Your task to perform on an android device: Do I have any events this weekend? Image 0: 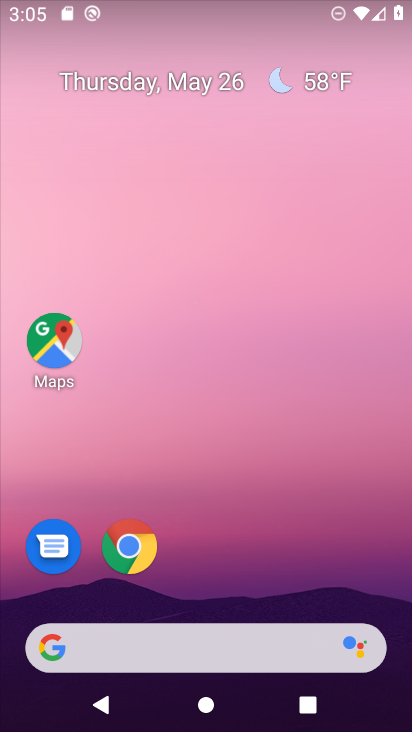
Step 0: press home button
Your task to perform on an android device: Do I have any events this weekend? Image 1: 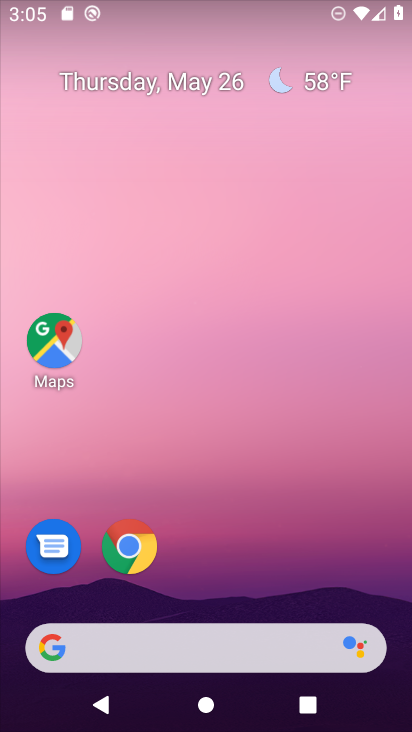
Step 1: drag from (226, 608) to (233, 1)
Your task to perform on an android device: Do I have any events this weekend? Image 2: 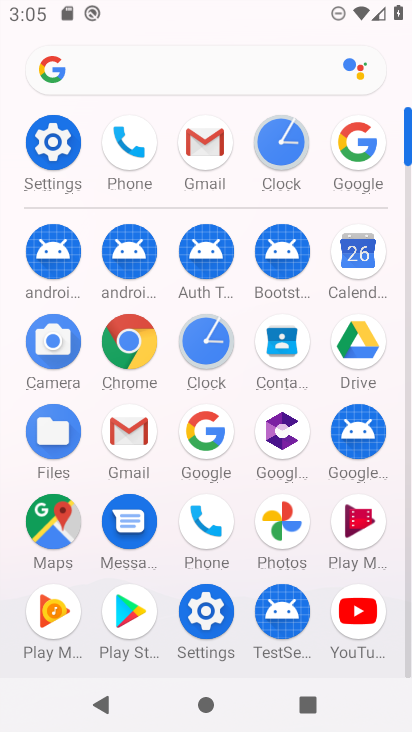
Step 2: click (357, 248)
Your task to perform on an android device: Do I have any events this weekend? Image 3: 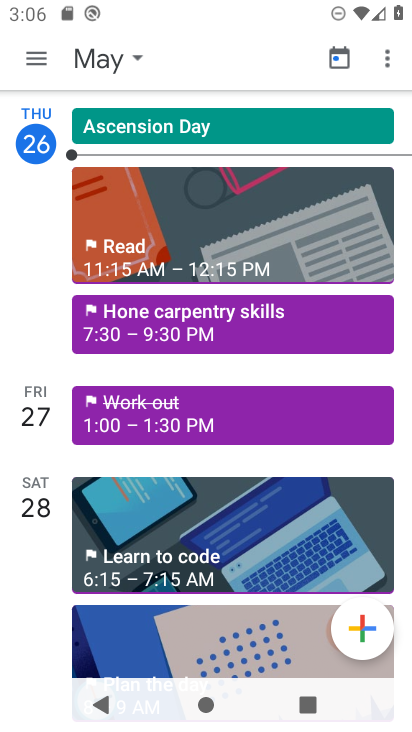
Step 3: task complete